Your task to perform on an android device: delete the emails in spam in the gmail app Image 0: 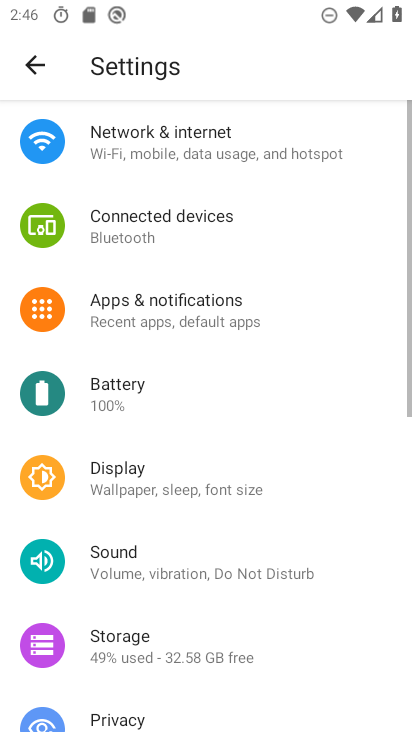
Step 0: press home button
Your task to perform on an android device: delete the emails in spam in the gmail app Image 1: 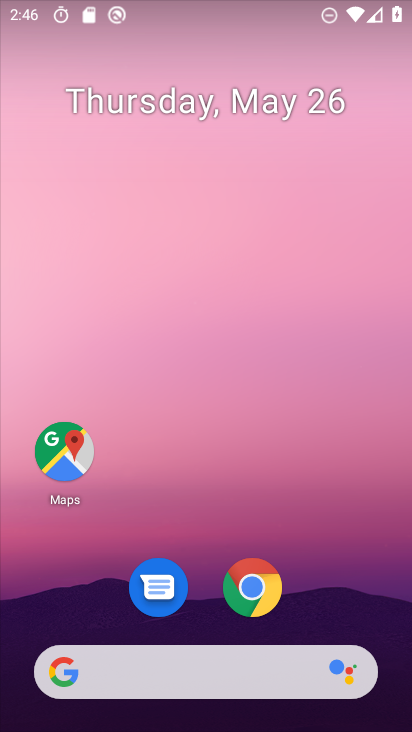
Step 1: drag from (344, 551) to (289, 179)
Your task to perform on an android device: delete the emails in spam in the gmail app Image 2: 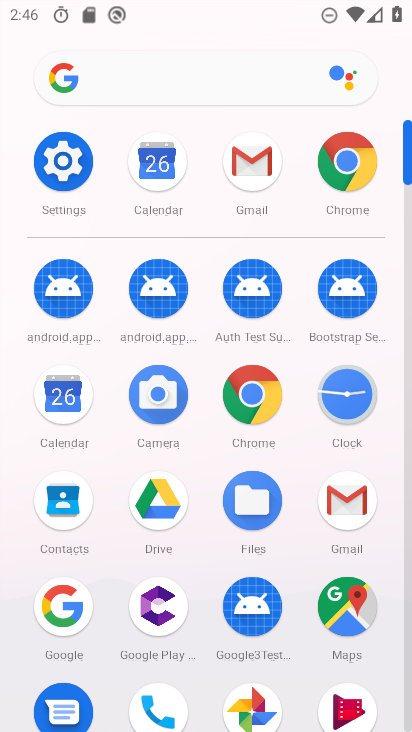
Step 2: click (247, 178)
Your task to perform on an android device: delete the emails in spam in the gmail app Image 3: 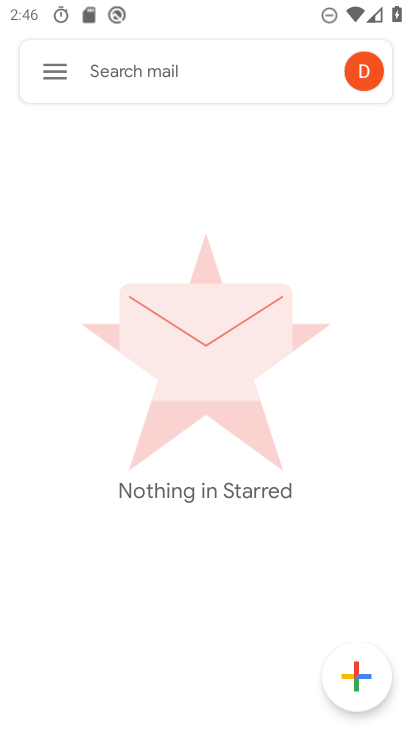
Step 3: click (56, 73)
Your task to perform on an android device: delete the emails in spam in the gmail app Image 4: 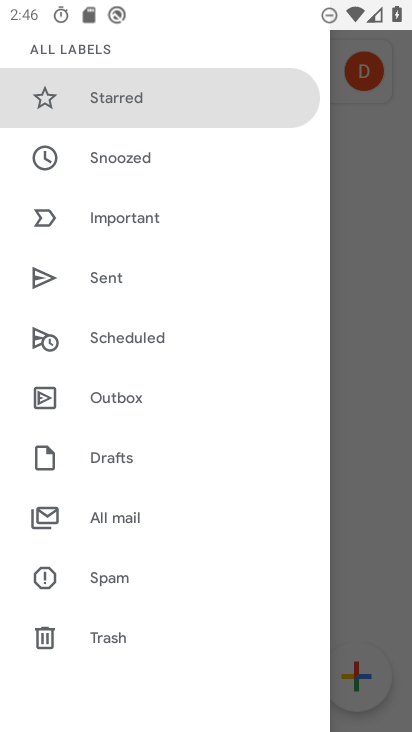
Step 4: drag from (152, 584) to (188, 224)
Your task to perform on an android device: delete the emails in spam in the gmail app Image 5: 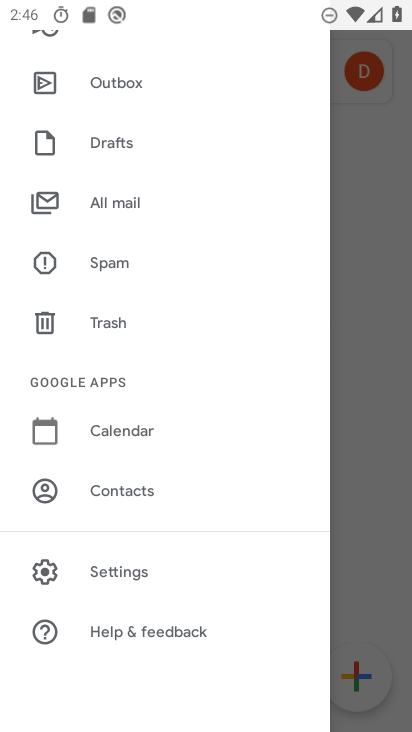
Step 5: click (127, 271)
Your task to perform on an android device: delete the emails in spam in the gmail app Image 6: 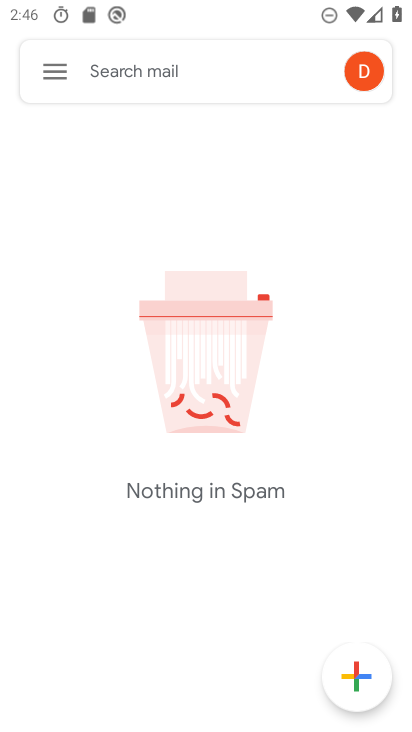
Step 6: task complete